Your task to perform on an android device: empty trash in google photos Image 0: 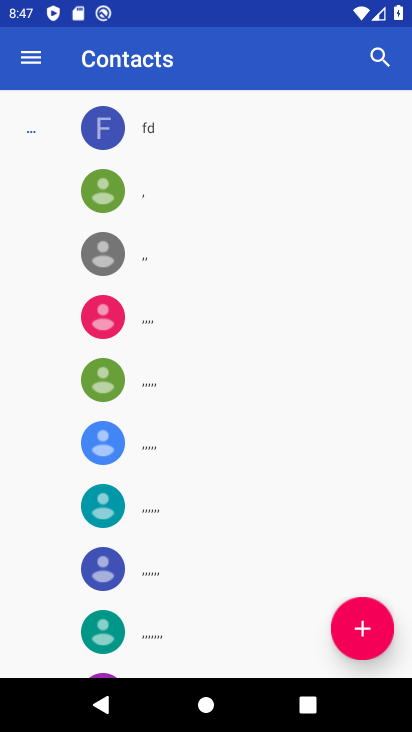
Step 0: press home button
Your task to perform on an android device: empty trash in google photos Image 1: 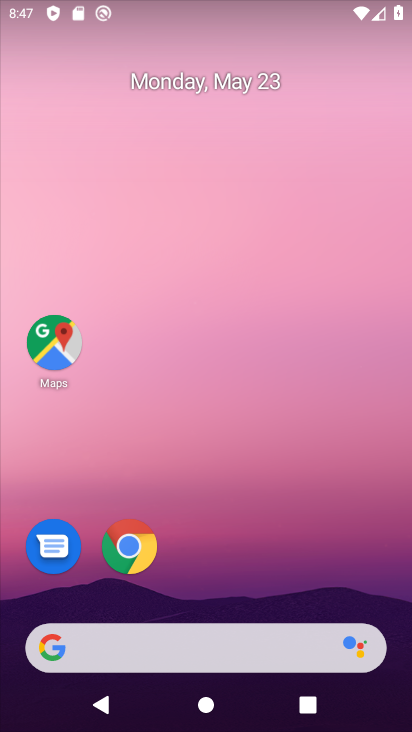
Step 1: drag from (261, 547) to (318, 161)
Your task to perform on an android device: empty trash in google photos Image 2: 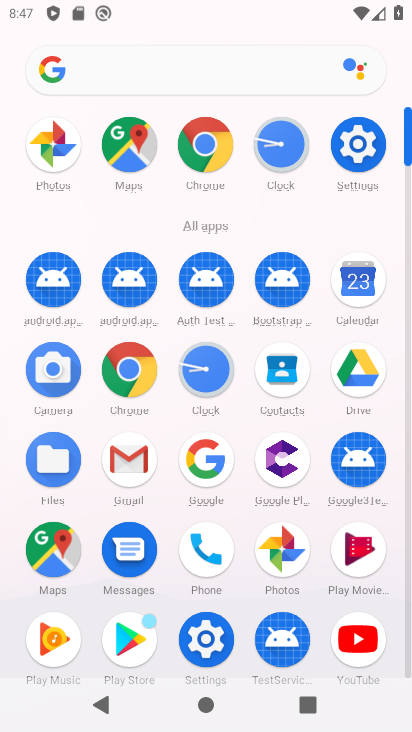
Step 2: click (277, 554)
Your task to perform on an android device: empty trash in google photos Image 3: 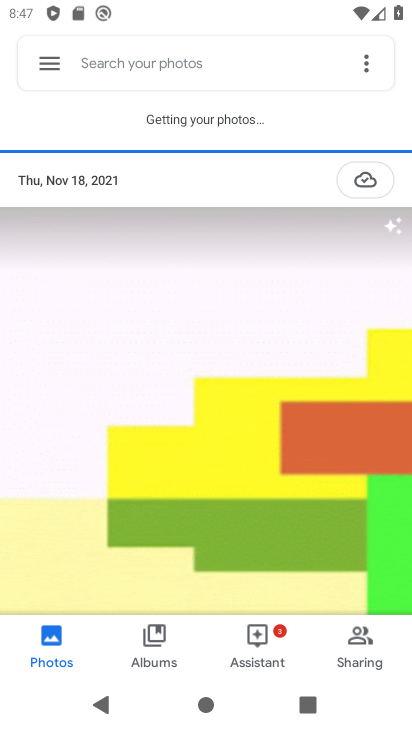
Step 3: click (36, 35)
Your task to perform on an android device: empty trash in google photos Image 4: 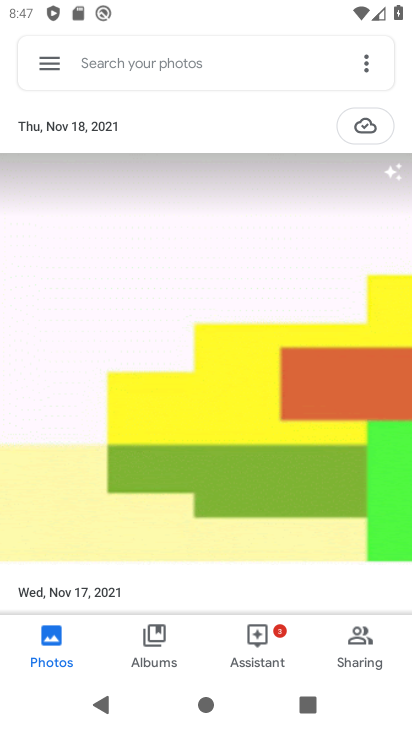
Step 4: click (42, 55)
Your task to perform on an android device: empty trash in google photos Image 5: 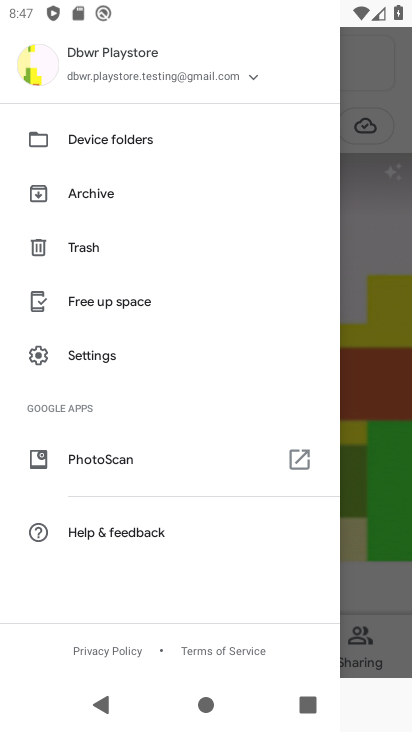
Step 5: click (39, 244)
Your task to perform on an android device: empty trash in google photos Image 6: 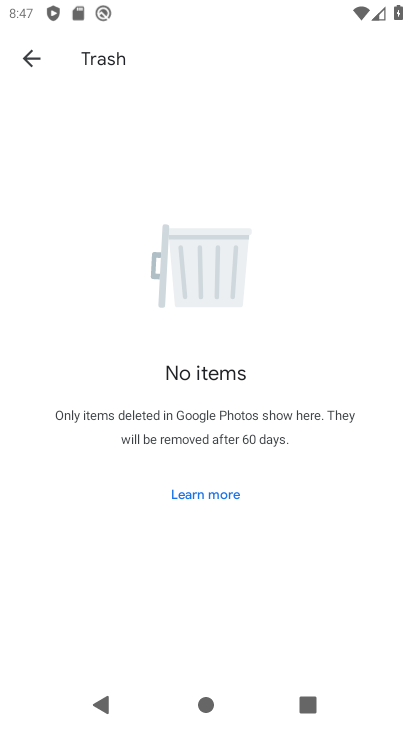
Step 6: task complete